Your task to perform on an android device: turn on data saver in the chrome app Image 0: 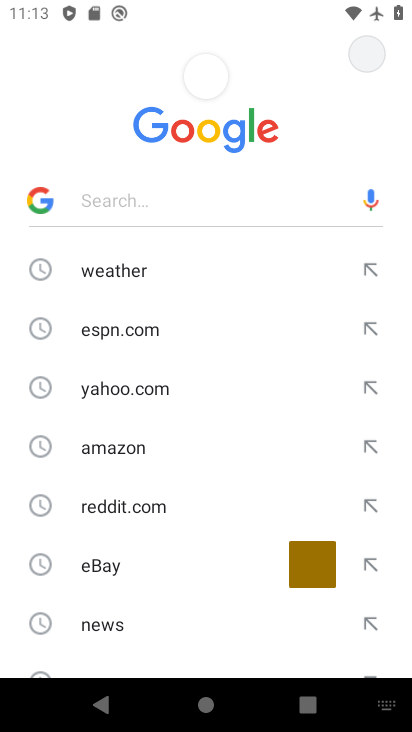
Step 0: press home button
Your task to perform on an android device: turn on data saver in the chrome app Image 1: 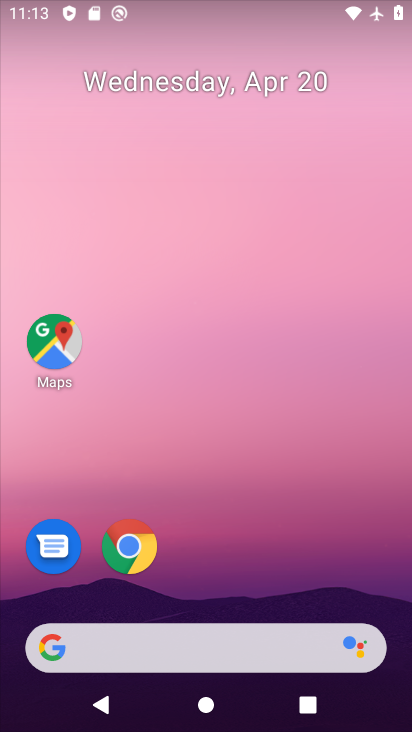
Step 1: drag from (232, 399) to (322, 113)
Your task to perform on an android device: turn on data saver in the chrome app Image 2: 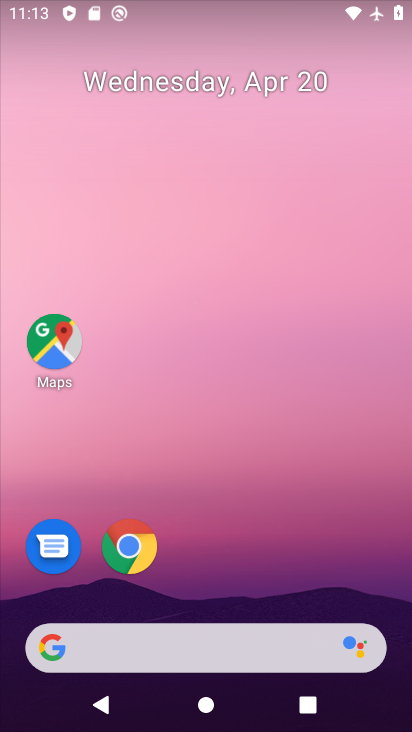
Step 2: drag from (203, 541) to (355, 49)
Your task to perform on an android device: turn on data saver in the chrome app Image 3: 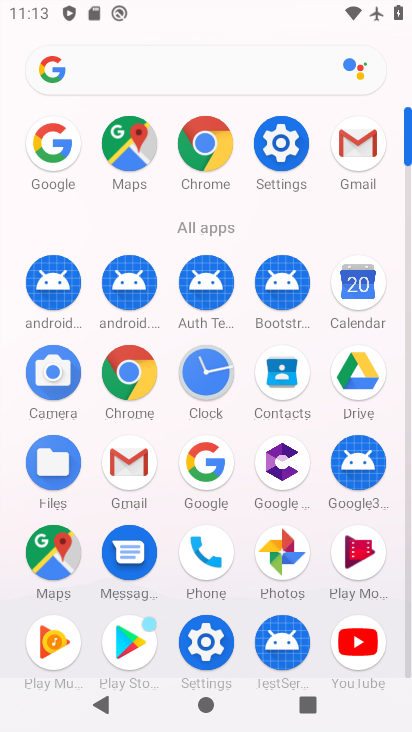
Step 3: click (199, 151)
Your task to perform on an android device: turn on data saver in the chrome app Image 4: 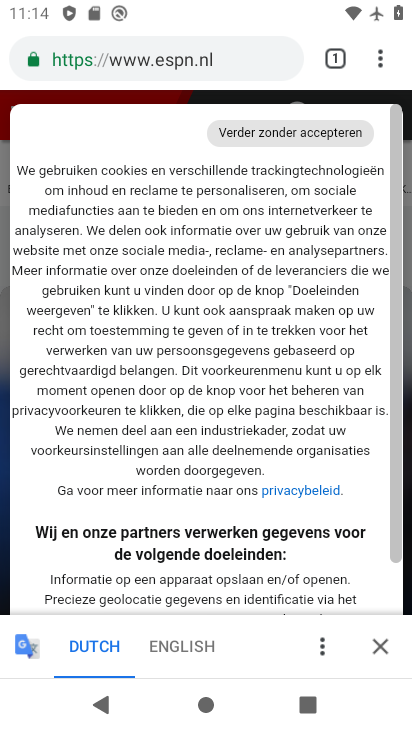
Step 4: click (376, 70)
Your task to perform on an android device: turn on data saver in the chrome app Image 5: 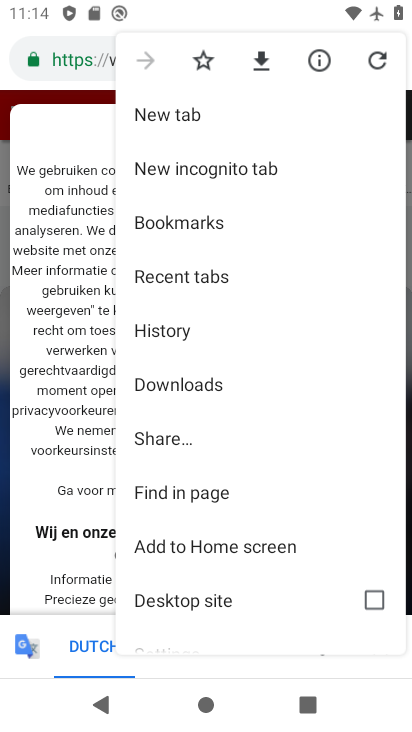
Step 5: drag from (280, 514) to (336, 253)
Your task to perform on an android device: turn on data saver in the chrome app Image 6: 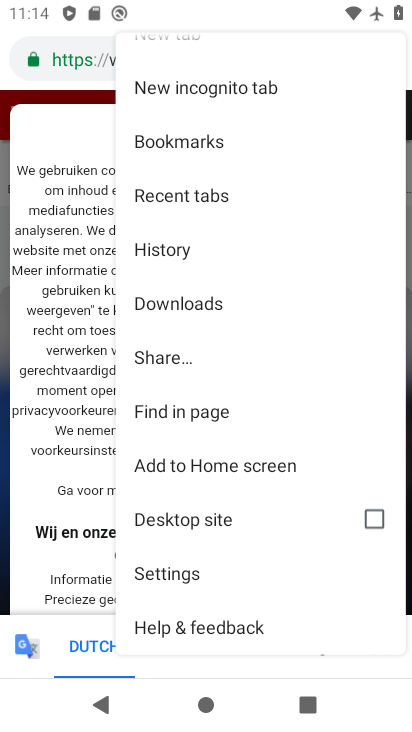
Step 6: click (179, 569)
Your task to perform on an android device: turn on data saver in the chrome app Image 7: 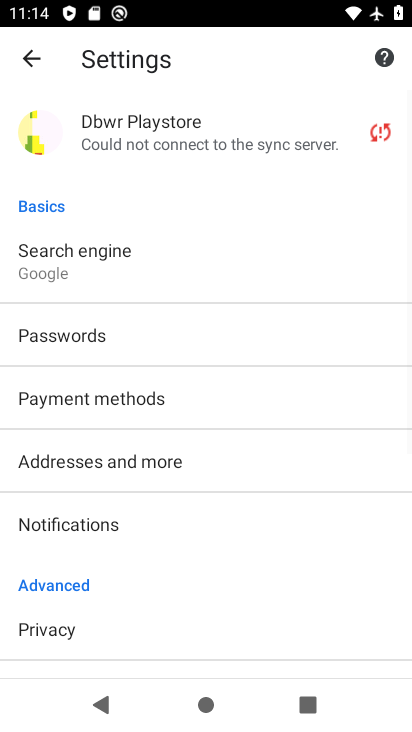
Step 7: drag from (162, 567) to (308, 169)
Your task to perform on an android device: turn on data saver in the chrome app Image 8: 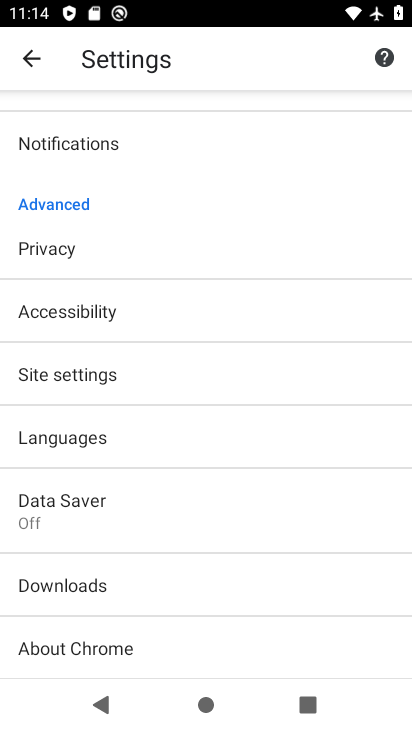
Step 8: click (74, 515)
Your task to perform on an android device: turn on data saver in the chrome app Image 9: 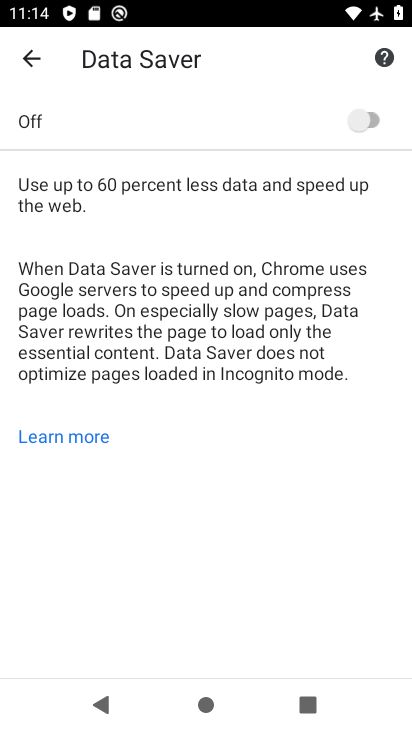
Step 9: click (373, 123)
Your task to perform on an android device: turn on data saver in the chrome app Image 10: 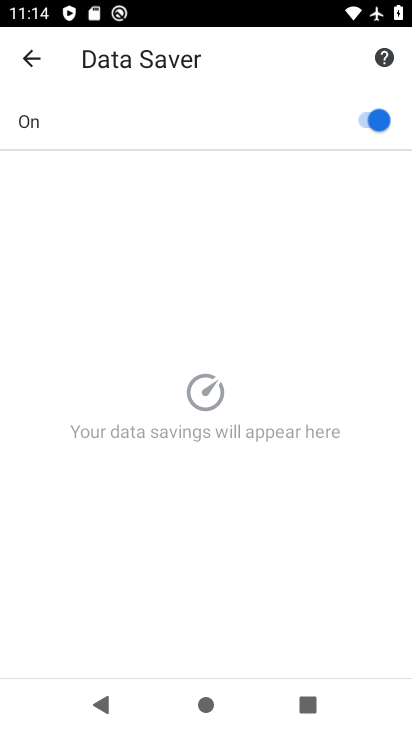
Step 10: task complete